Your task to perform on an android device: What's on my calendar today? Image 0: 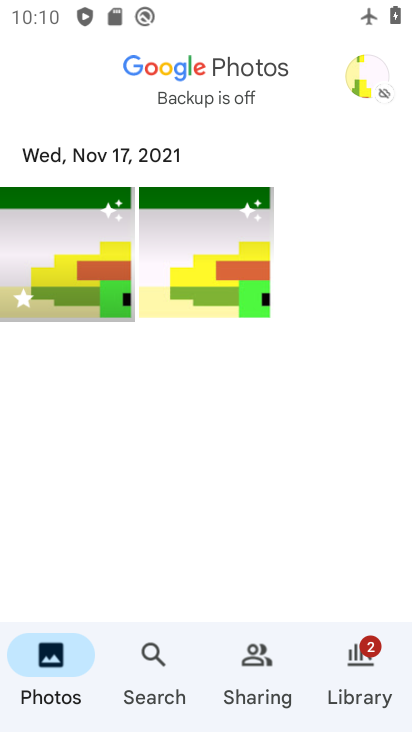
Step 0: press home button
Your task to perform on an android device: What's on my calendar today? Image 1: 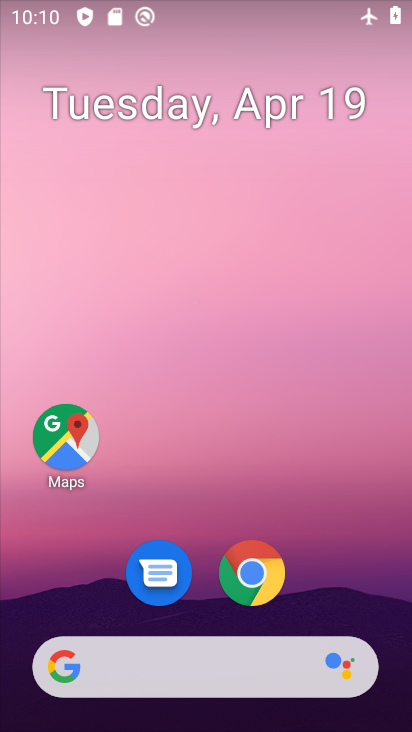
Step 1: drag from (364, 575) to (371, 130)
Your task to perform on an android device: What's on my calendar today? Image 2: 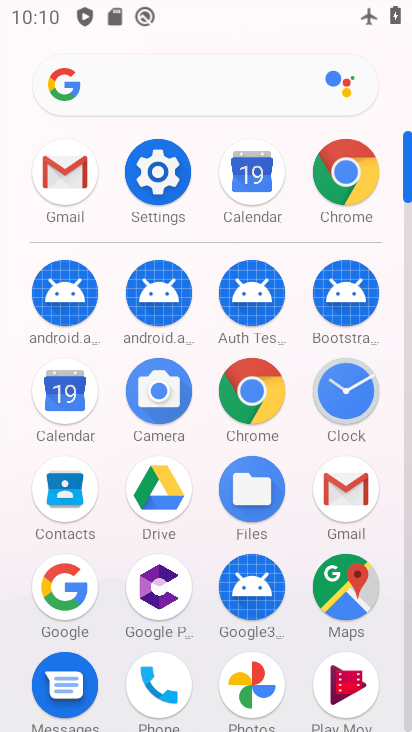
Step 2: click (66, 399)
Your task to perform on an android device: What's on my calendar today? Image 3: 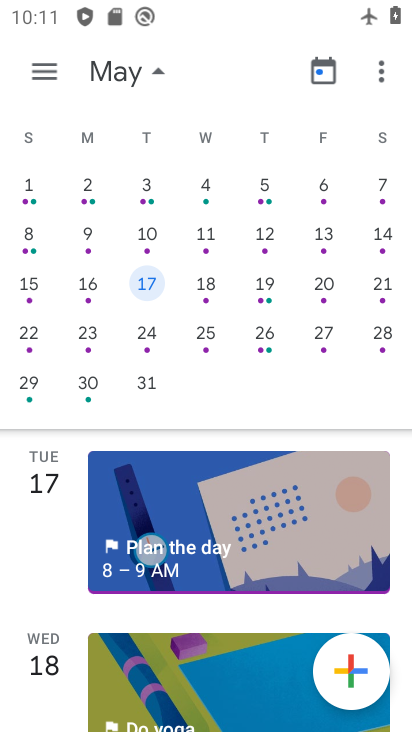
Step 3: click (46, 67)
Your task to perform on an android device: What's on my calendar today? Image 4: 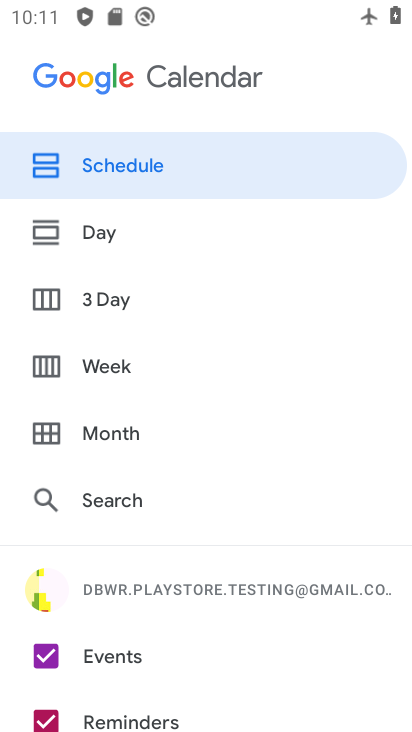
Step 4: click (97, 227)
Your task to perform on an android device: What's on my calendar today? Image 5: 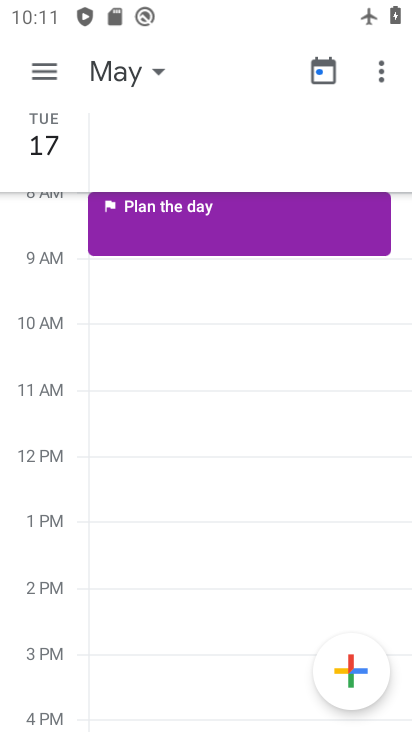
Step 5: click (153, 65)
Your task to perform on an android device: What's on my calendar today? Image 6: 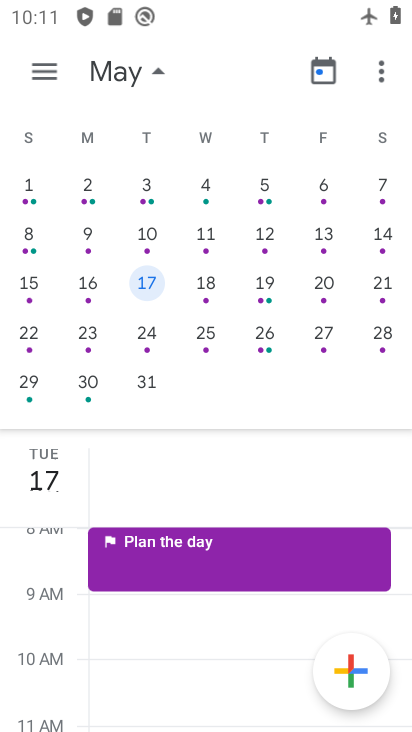
Step 6: drag from (19, 261) to (410, 398)
Your task to perform on an android device: What's on my calendar today? Image 7: 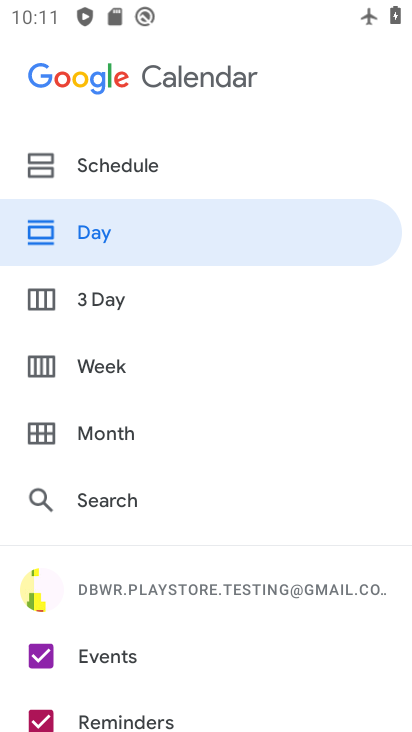
Step 7: drag from (350, 397) to (55, 339)
Your task to perform on an android device: What's on my calendar today? Image 8: 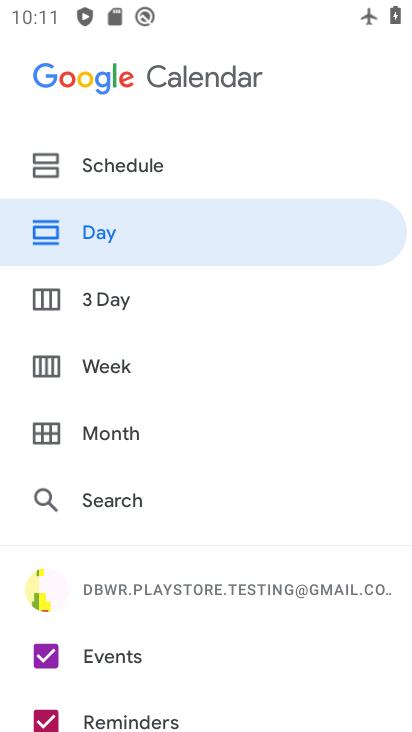
Step 8: click (80, 227)
Your task to perform on an android device: What's on my calendar today? Image 9: 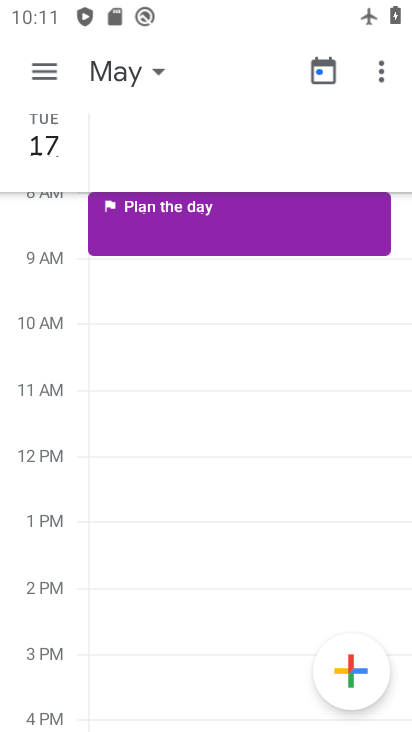
Step 9: click (167, 71)
Your task to perform on an android device: What's on my calendar today? Image 10: 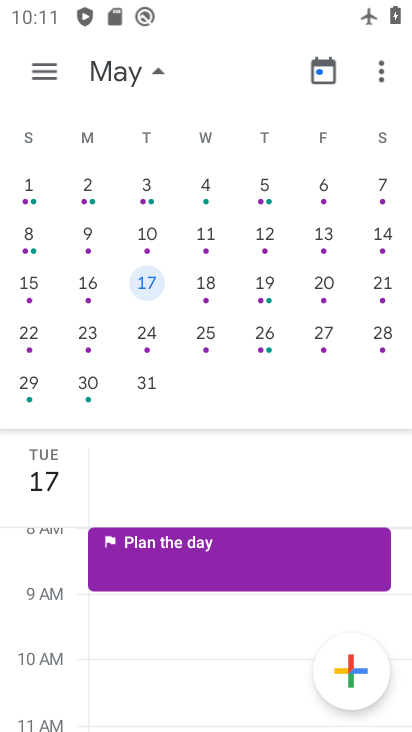
Step 10: drag from (77, 217) to (410, 223)
Your task to perform on an android device: What's on my calendar today? Image 11: 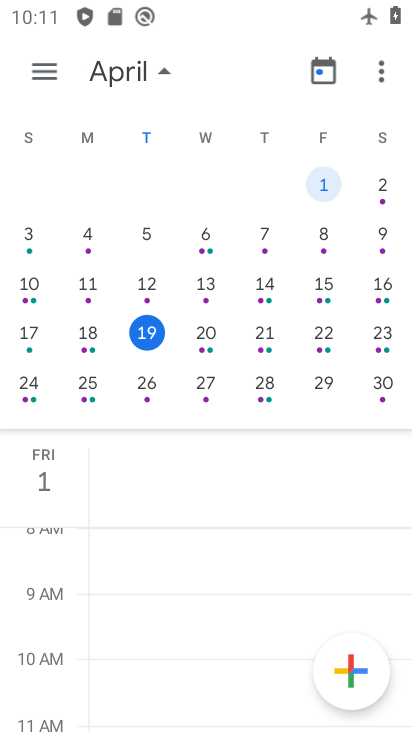
Step 11: click (206, 337)
Your task to perform on an android device: What's on my calendar today? Image 12: 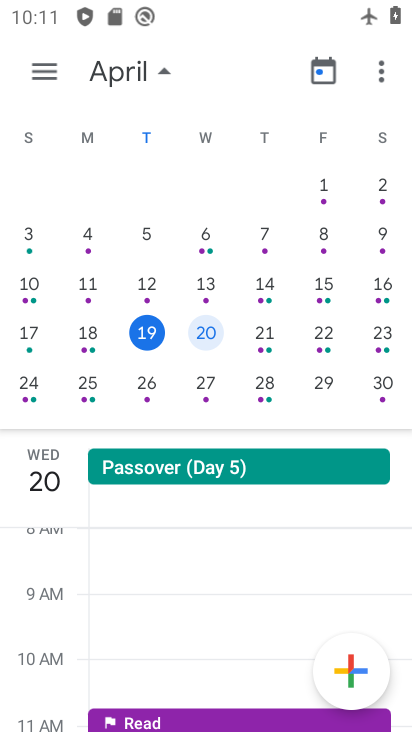
Step 12: task complete